Your task to perform on an android device: turn on sleep mode Image 0: 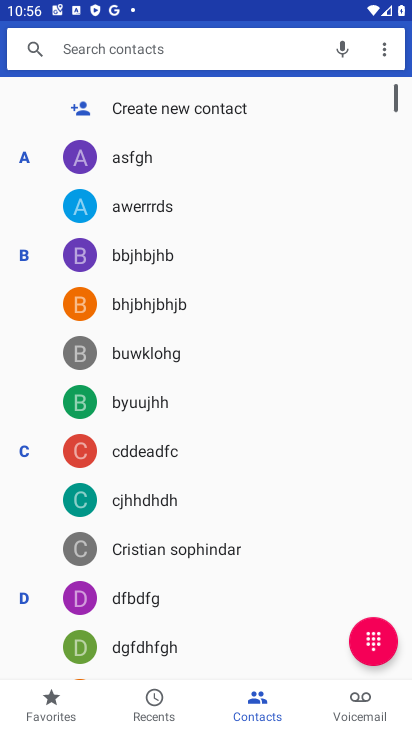
Step 0: press home button
Your task to perform on an android device: turn on sleep mode Image 1: 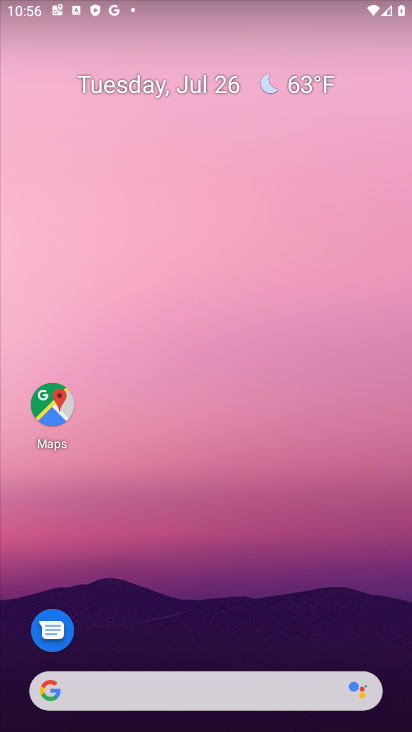
Step 1: drag from (313, 619) to (97, 25)
Your task to perform on an android device: turn on sleep mode Image 2: 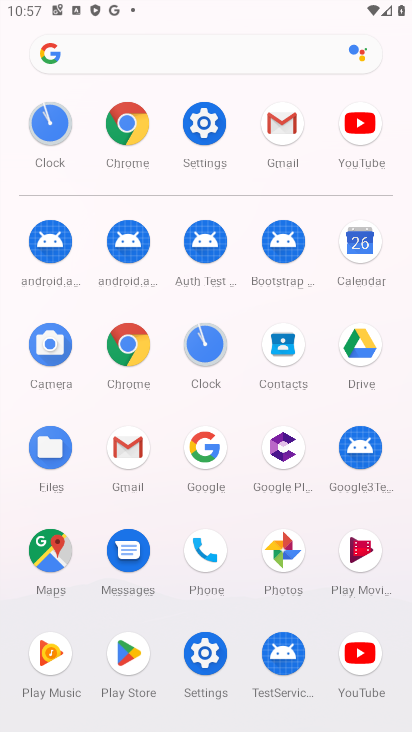
Step 2: click (198, 117)
Your task to perform on an android device: turn on sleep mode Image 3: 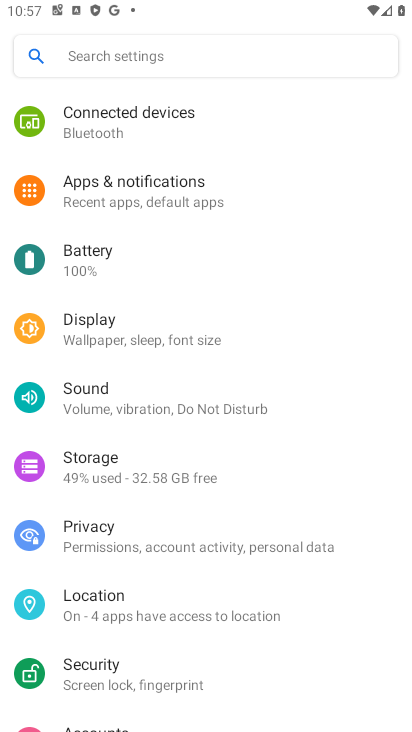
Step 3: click (136, 334)
Your task to perform on an android device: turn on sleep mode Image 4: 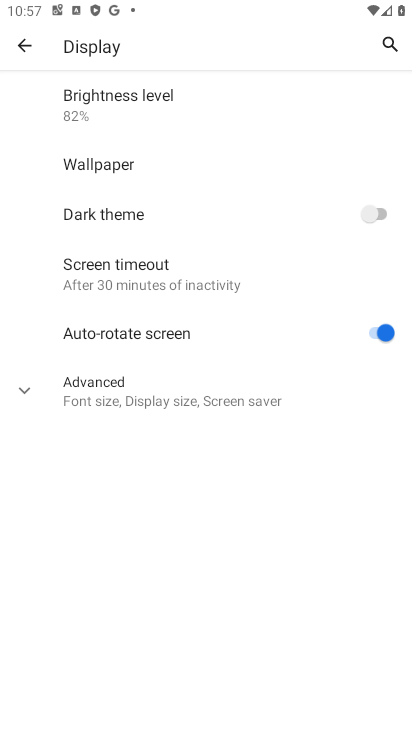
Step 4: click (109, 279)
Your task to perform on an android device: turn on sleep mode Image 5: 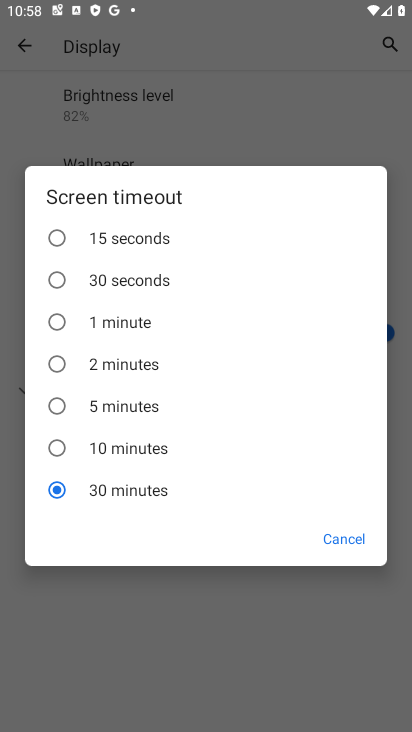
Step 5: task complete